Your task to perform on an android device: change the clock display to analog Image 0: 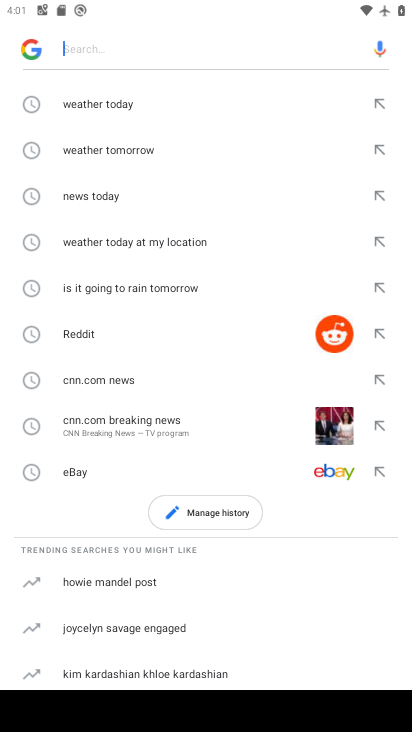
Step 0: press back button
Your task to perform on an android device: change the clock display to analog Image 1: 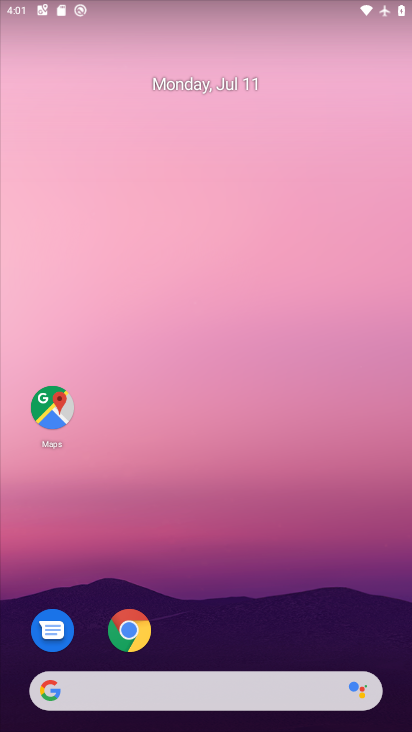
Step 1: drag from (226, 633) to (249, 128)
Your task to perform on an android device: change the clock display to analog Image 2: 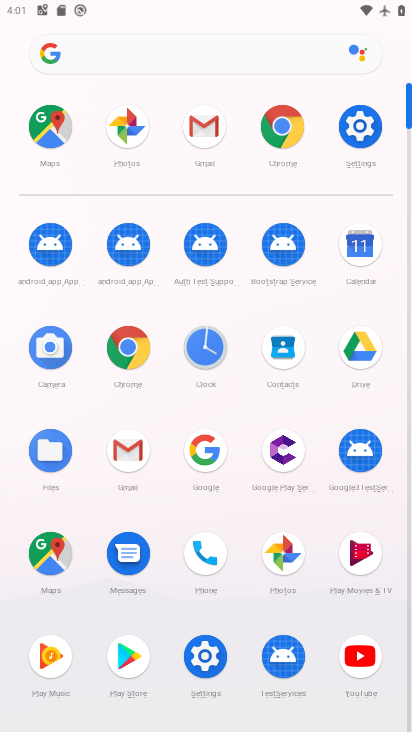
Step 2: click (188, 358)
Your task to perform on an android device: change the clock display to analog Image 3: 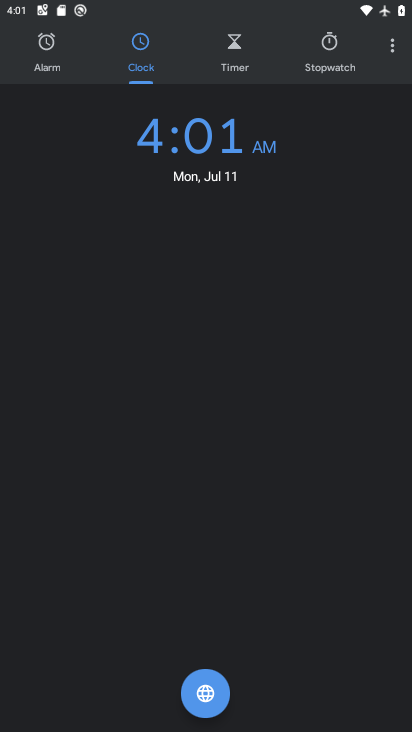
Step 3: click (54, 81)
Your task to perform on an android device: change the clock display to analog Image 4: 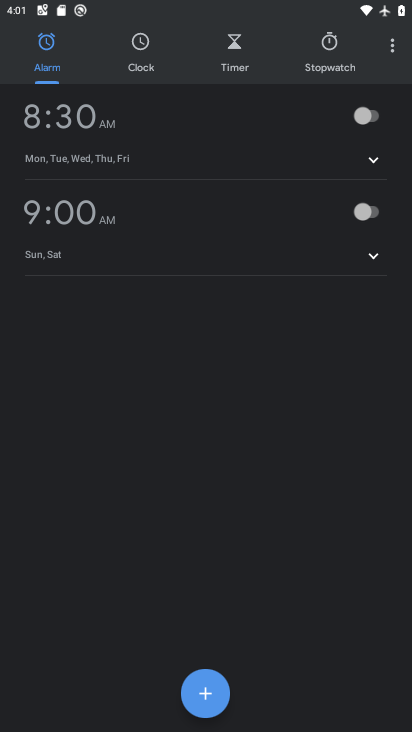
Step 4: click (398, 45)
Your task to perform on an android device: change the clock display to analog Image 5: 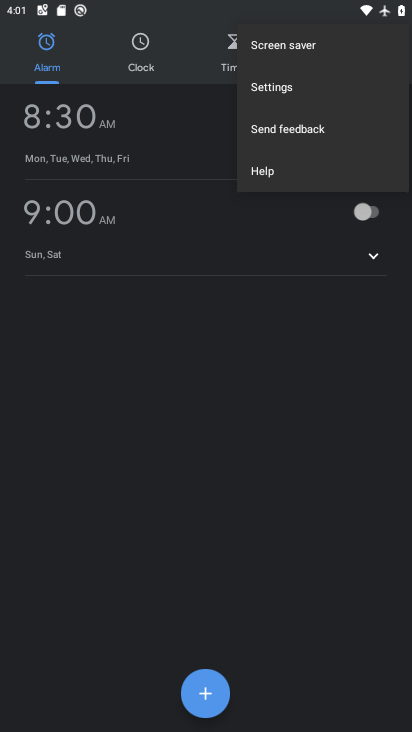
Step 5: click (286, 77)
Your task to perform on an android device: change the clock display to analog Image 6: 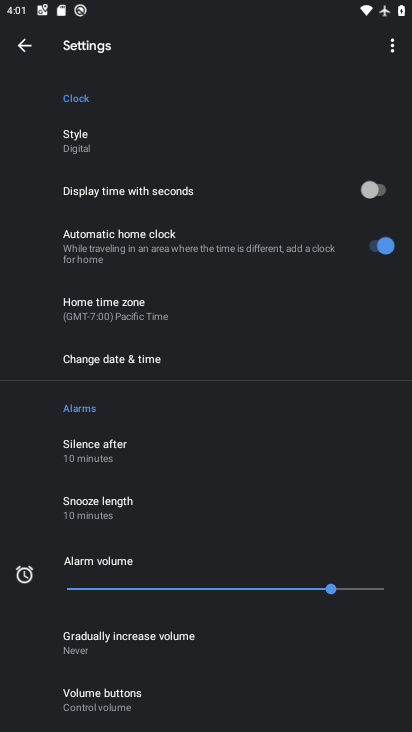
Step 6: click (115, 148)
Your task to perform on an android device: change the clock display to analog Image 7: 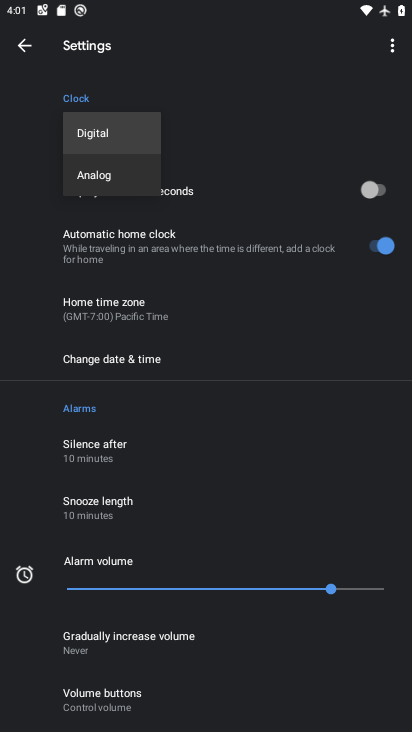
Step 7: click (120, 168)
Your task to perform on an android device: change the clock display to analog Image 8: 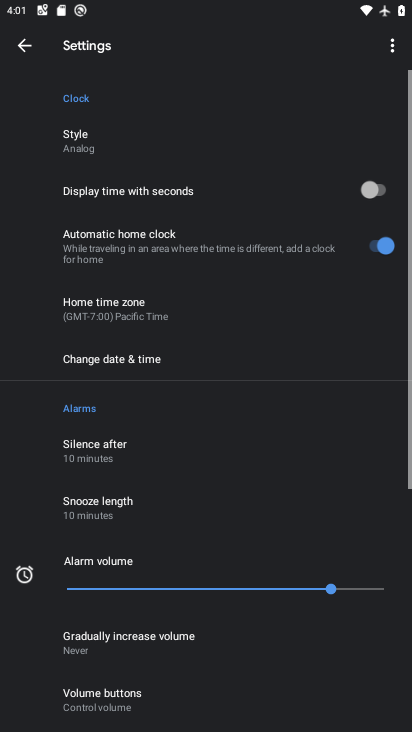
Step 8: task complete